Your task to perform on an android device: Do I have any events tomorrow? Image 0: 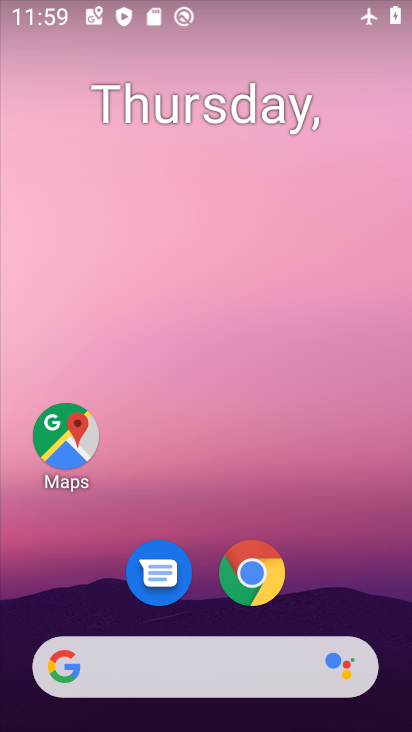
Step 0: drag from (335, 568) to (306, 103)
Your task to perform on an android device: Do I have any events tomorrow? Image 1: 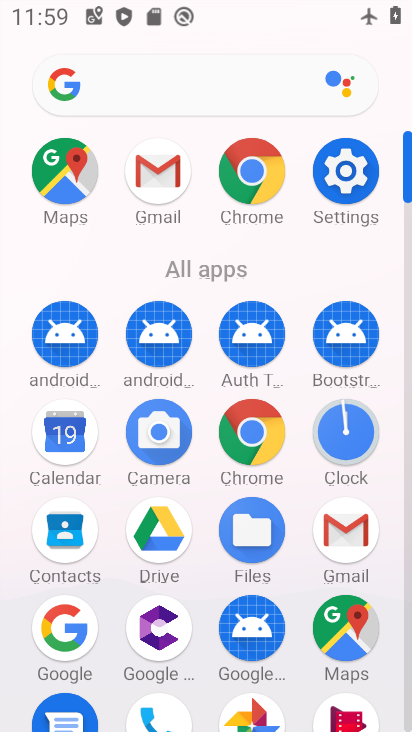
Step 1: click (66, 433)
Your task to perform on an android device: Do I have any events tomorrow? Image 2: 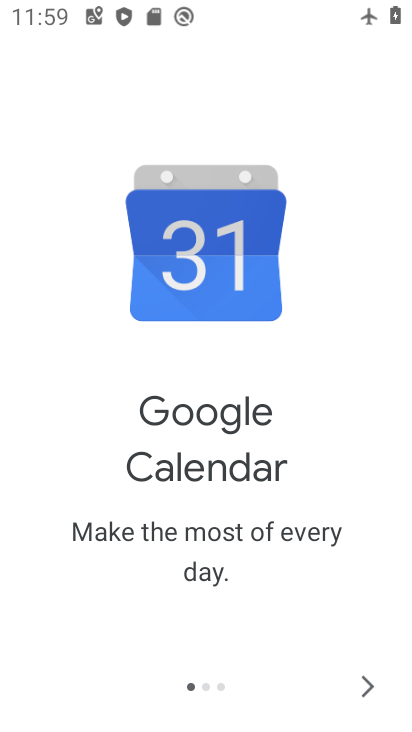
Step 2: click (375, 694)
Your task to perform on an android device: Do I have any events tomorrow? Image 3: 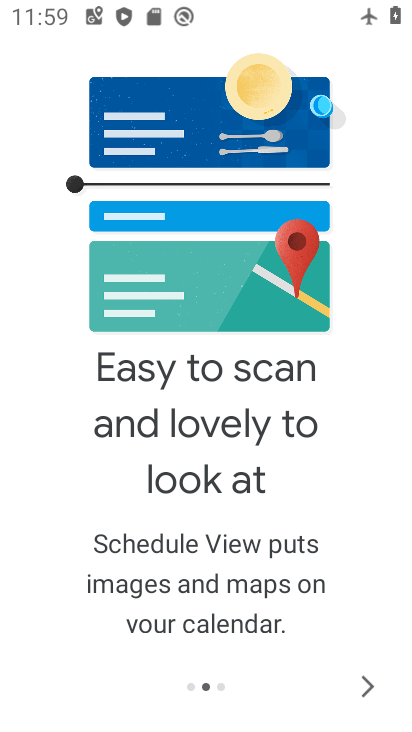
Step 3: click (375, 694)
Your task to perform on an android device: Do I have any events tomorrow? Image 4: 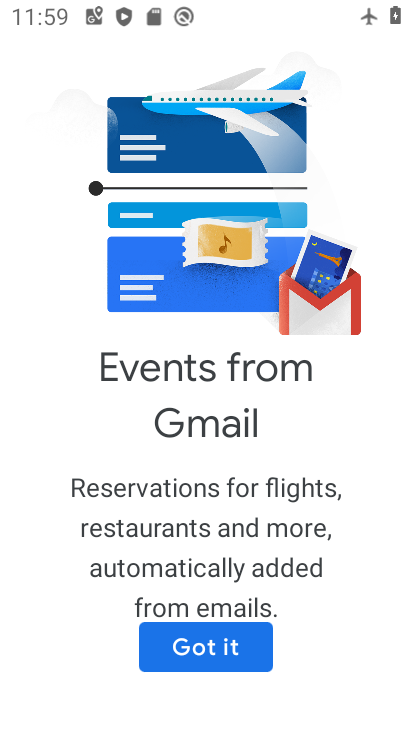
Step 4: click (375, 694)
Your task to perform on an android device: Do I have any events tomorrow? Image 5: 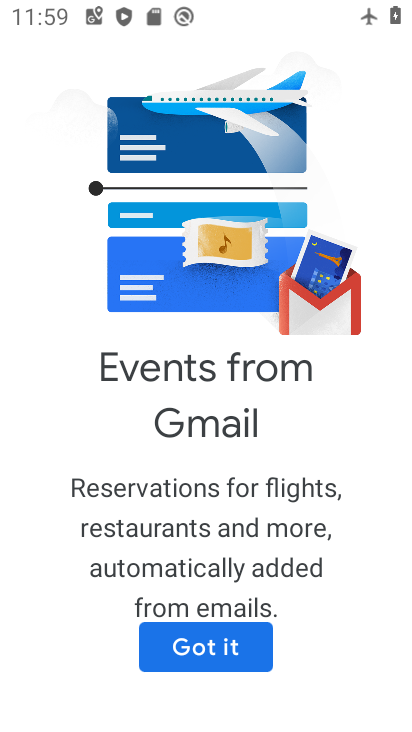
Step 5: click (233, 655)
Your task to perform on an android device: Do I have any events tomorrow? Image 6: 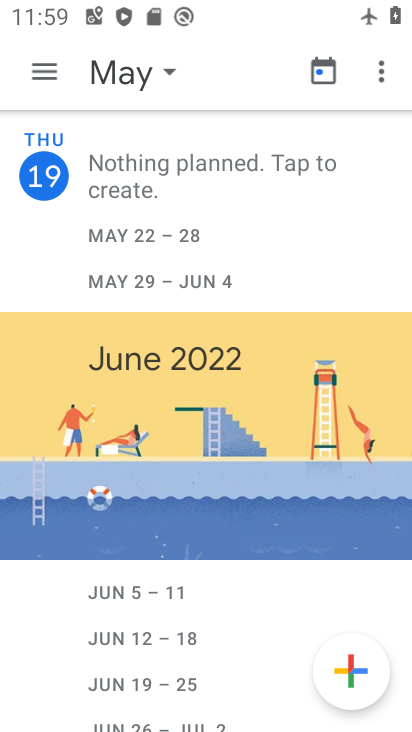
Step 6: click (155, 75)
Your task to perform on an android device: Do I have any events tomorrow? Image 7: 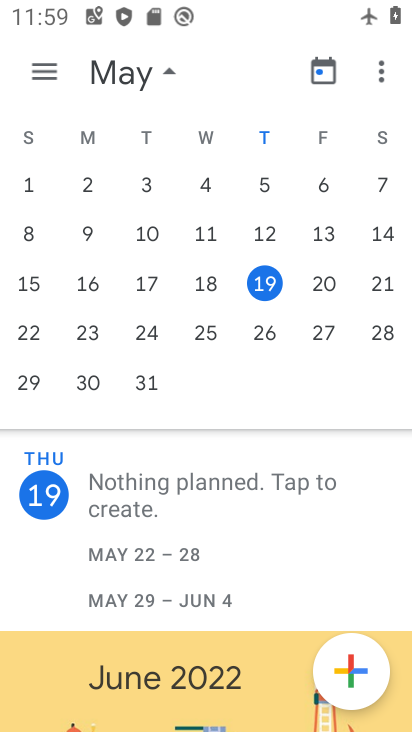
Step 7: click (330, 284)
Your task to perform on an android device: Do I have any events tomorrow? Image 8: 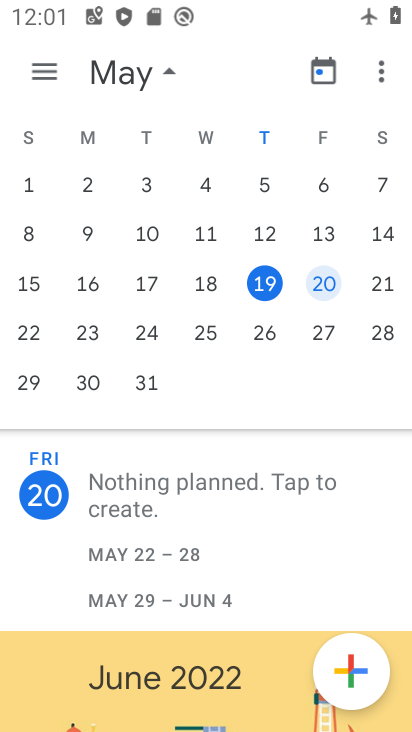
Step 8: task complete